Your task to perform on an android device: star an email in the gmail app Image 0: 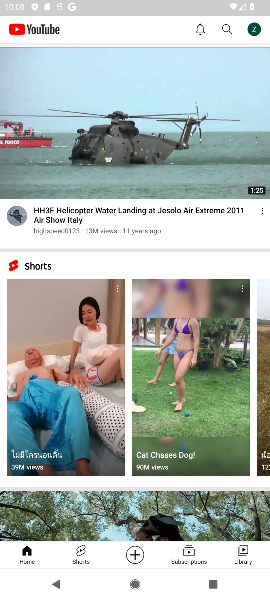
Step 0: press home button
Your task to perform on an android device: star an email in the gmail app Image 1: 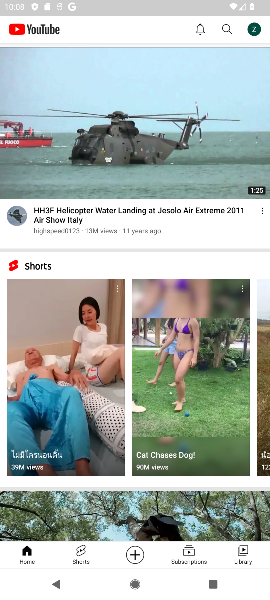
Step 1: press home button
Your task to perform on an android device: star an email in the gmail app Image 2: 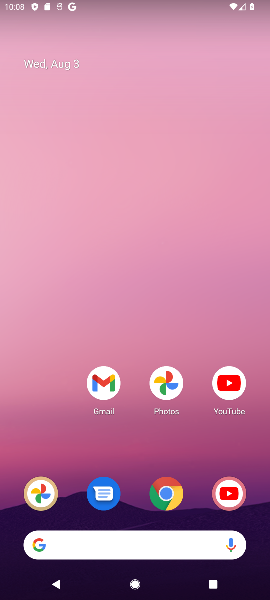
Step 2: click (99, 377)
Your task to perform on an android device: star an email in the gmail app Image 3: 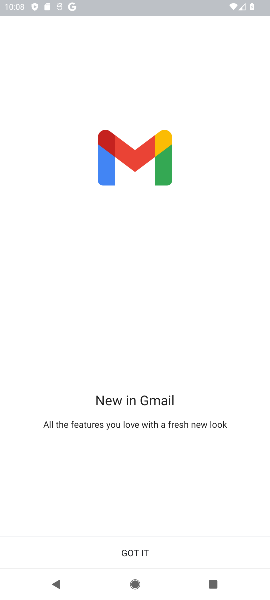
Step 3: click (138, 547)
Your task to perform on an android device: star an email in the gmail app Image 4: 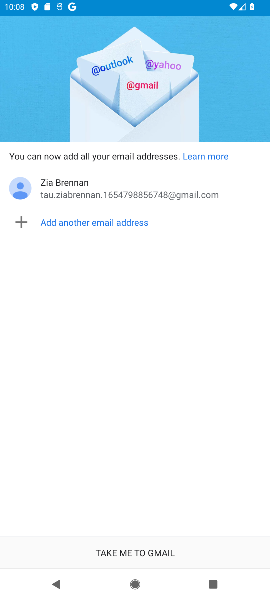
Step 4: click (138, 547)
Your task to perform on an android device: star an email in the gmail app Image 5: 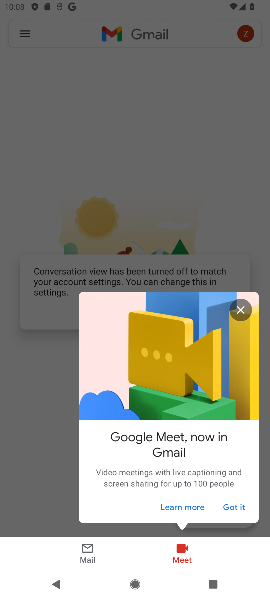
Step 5: click (244, 310)
Your task to perform on an android device: star an email in the gmail app Image 6: 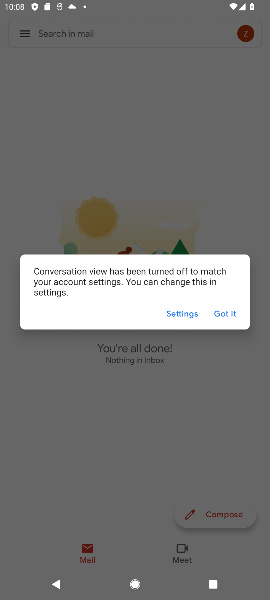
Step 6: click (226, 310)
Your task to perform on an android device: star an email in the gmail app Image 7: 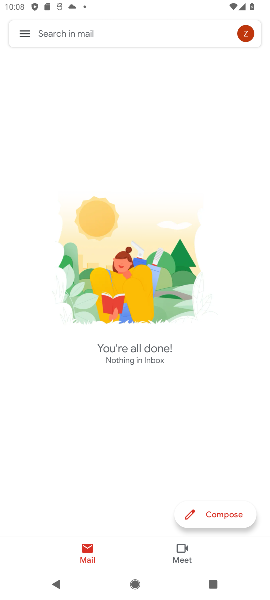
Step 7: task complete